Your task to perform on an android device: Set the phone to "Do not disturb". Image 0: 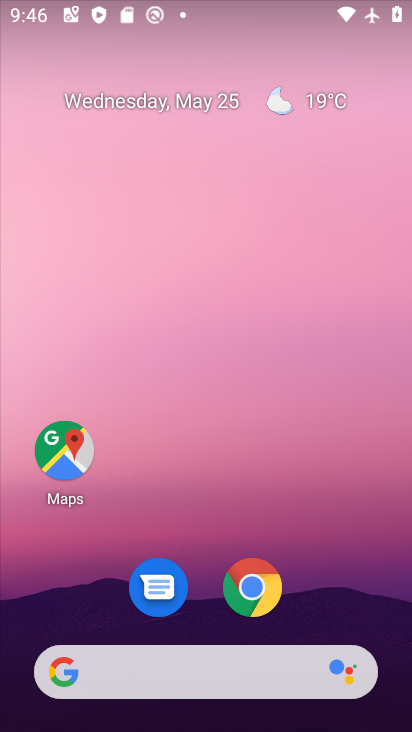
Step 0: drag from (390, 637) to (298, 29)
Your task to perform on an android device: Set the phone to "Do not disturb". Image 1: 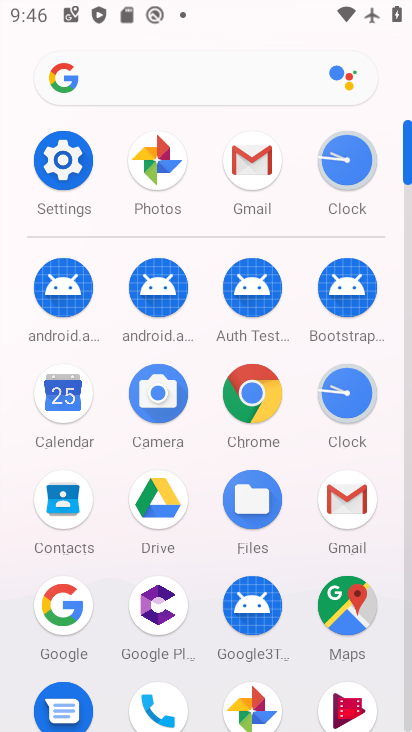
Step 1: click (406, 687)
Your task to perform on an android device: Set the phone to "Do not disturb". Image 2: 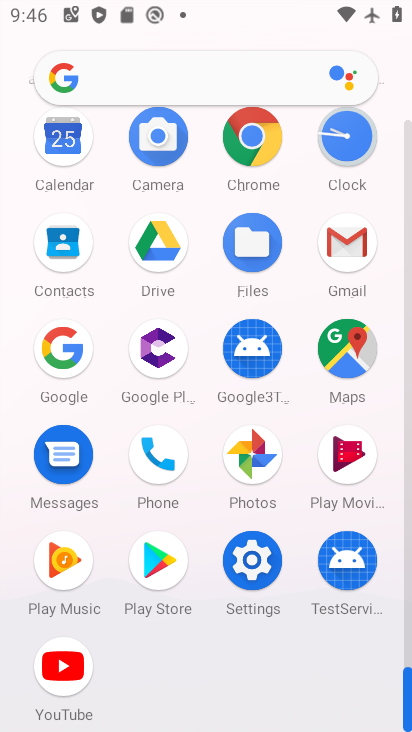
Step 2: click (250, 559)
Your task to perform on an android device: Set the phone to "Do not disturb". Image 3: 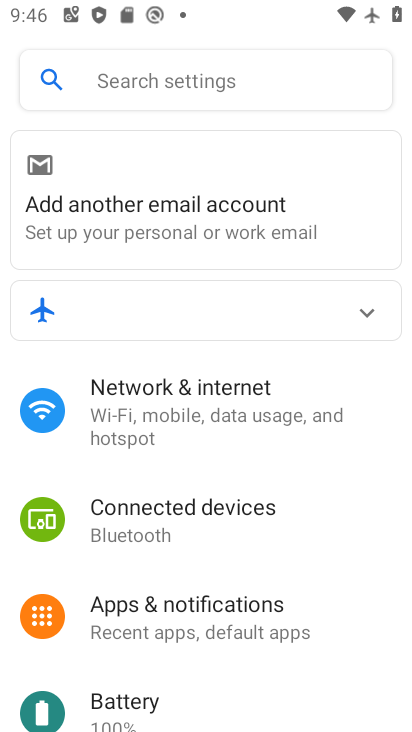
Step 3: drag from (337, 676) to (332, 209)
Your task to perform on an android device: Set the phone to "Do not disturb". Image 4: 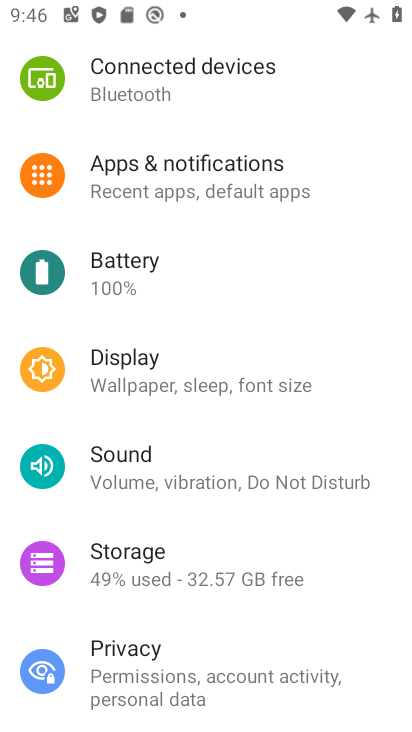
Step 4: click (138, 471)
Your task to perform on an android device: Set the phone to "Do not disturb". Image 5: 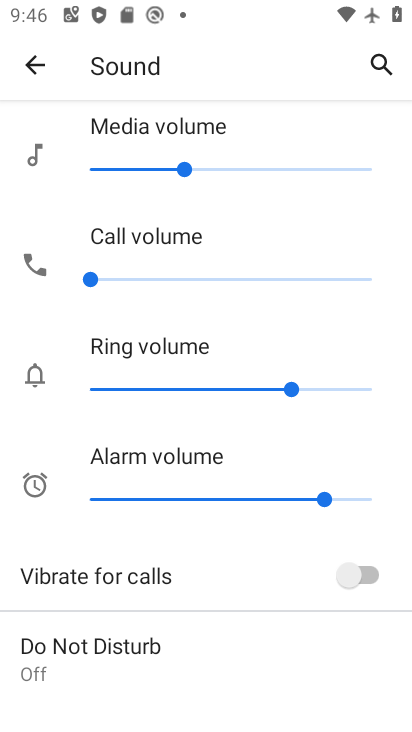
Step 5: click (101, 659)
Your task to perform on an android device: Set the phone to "Do not disturb". Image 6: 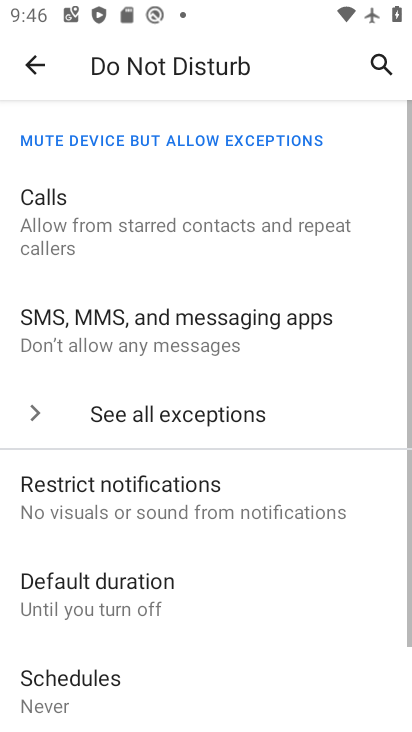
Step 6: drag from (222, 657) to (265, 282)
Your task to perform on an android device: Set the phone to "Do not disturb". Image 7: 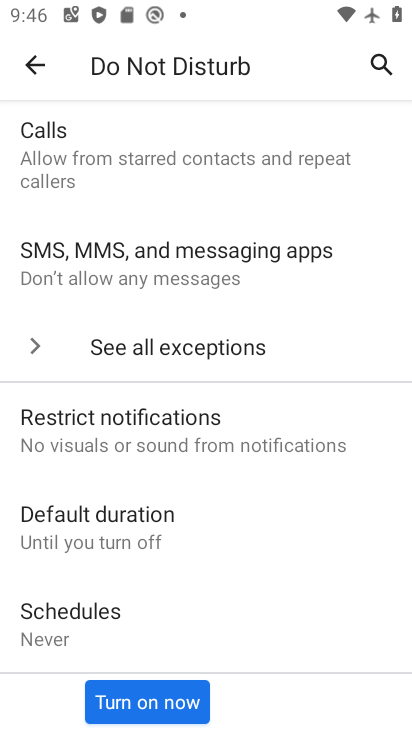
Step 7: click (130, 706)
Your task to perform on an android device: Set the phone to "Do not disturb". Image 8: 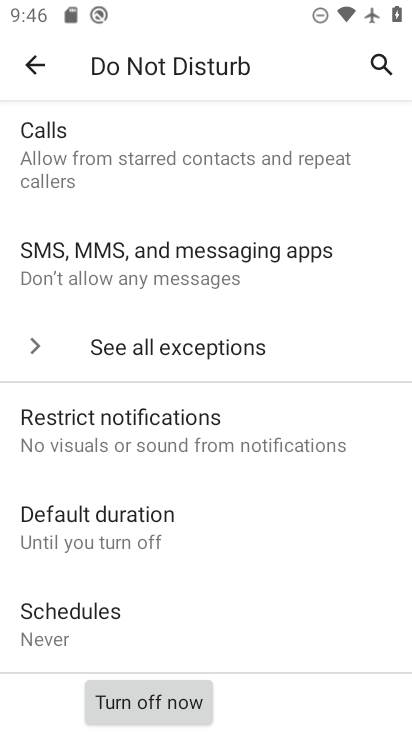
Step 8: task complete